Your task to perform on an android device: move a message to another label in the gmail app Image 0: 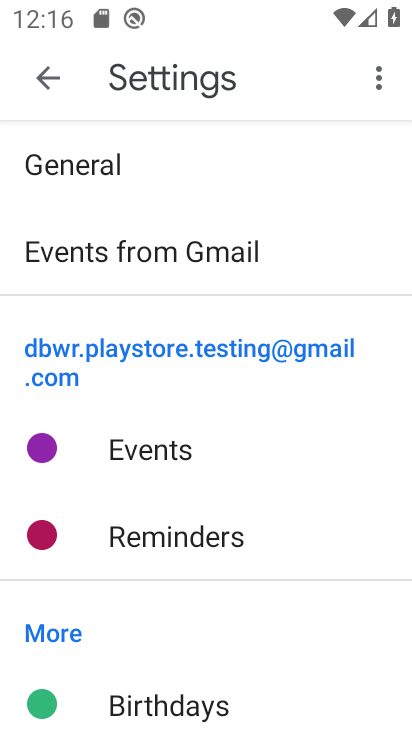
Step 0: press home button
Your task to perform on an android device: move a message to another label in the gmail app Image 1: 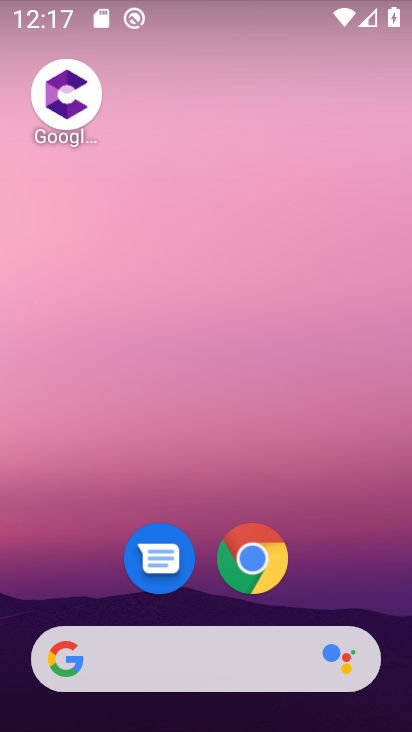
Step 1: drag from (342, 610) to (281, 123)
Your task to perform on an android device: move a message to another label in the gmail app Image 2: 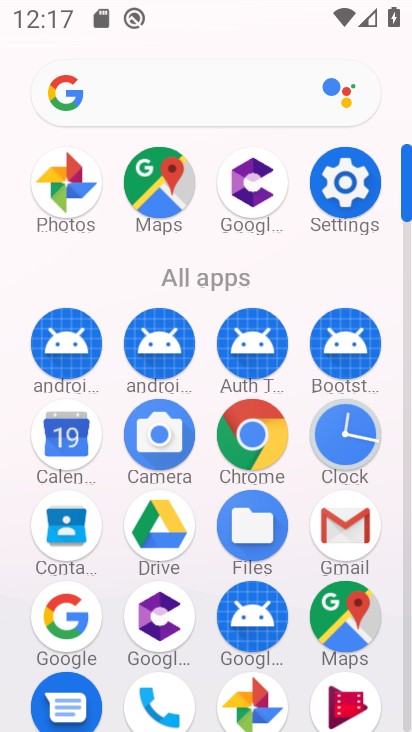
Step 2: click (347, 521)
Your task to perform on an android device: move a message to another label in the gmail app Image 3: 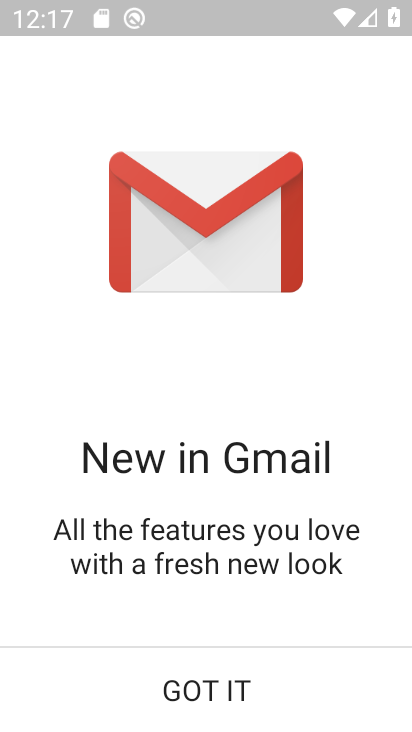
Step 3: click (207, 678)
Your task to perform on an android device: move a message to another label in the gmail app Image 4: 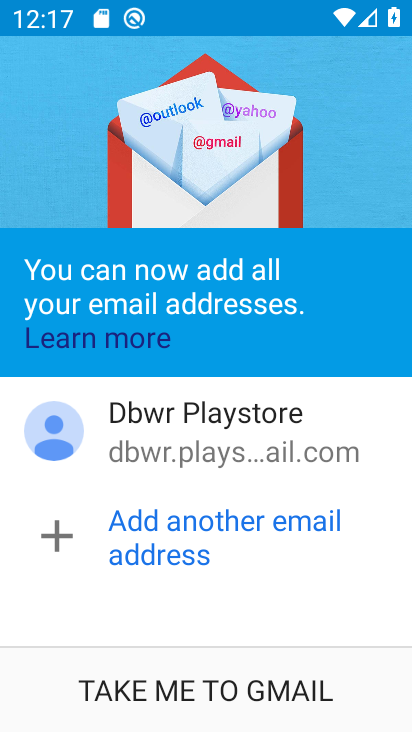
Step 4: click (207, 686)
Your task to perform on an android device: move a message to another label in the gmail app Image 5: 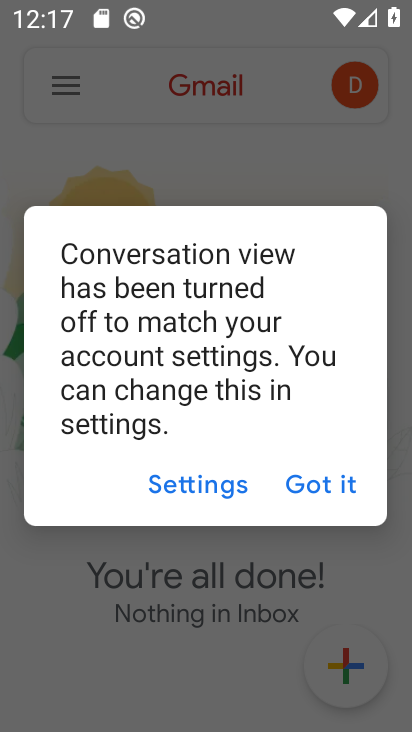
Step 5: click (317, 479)
Your task to perform on an android device: move a message to another label in the gmail app Image 6: 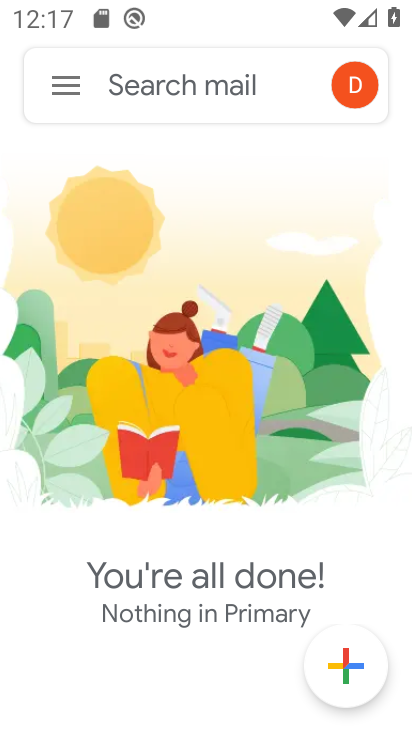
Step 6: click (70, 86)
Your task to perform on an android device: move a message to another label in the gmail app Image 7: 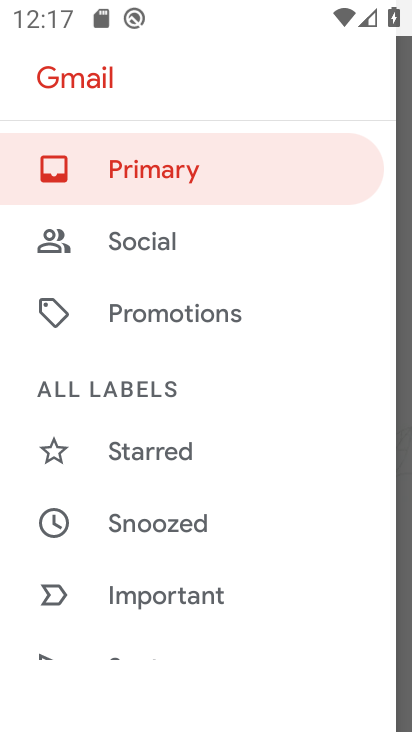
Step 7: task complete